Your task to perform on an android device: add a label to a message in the gmail app Image 0: 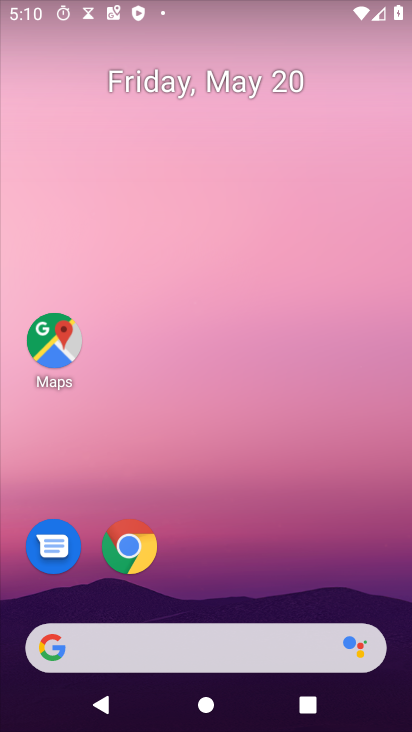
Step 0: drag from (244, 576) to (244, 273)
Your task to perform on an android device: add a label to a message in the gmail app Image 1: 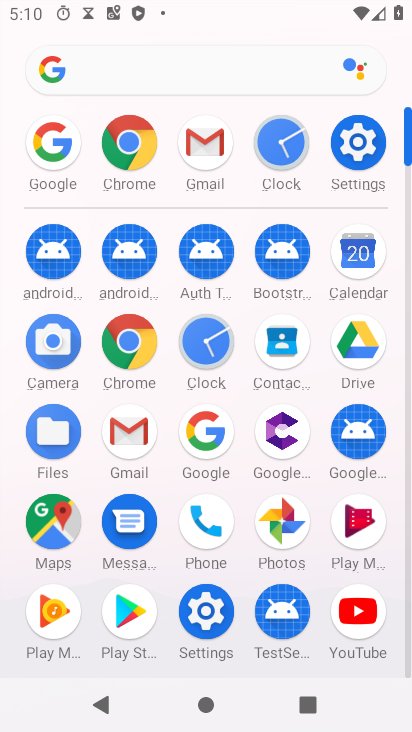
Step 1: click (207, 138)
Your task to perform on an android device: add a label to a message in the gmail app Image 2: 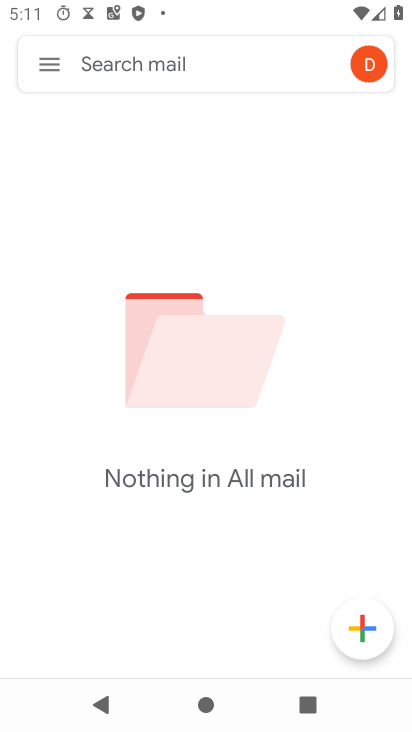
Step 2: click (46, 63)
Your task to perform on an android device: add a label to a message in the gmail app Image 3: 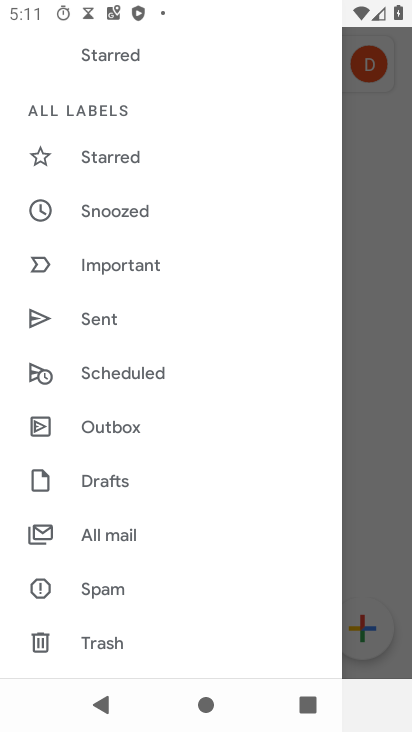
Step 3: click (107, 523)
Your task to perform on an android device: add a label to a message in the gmail app Image 4: 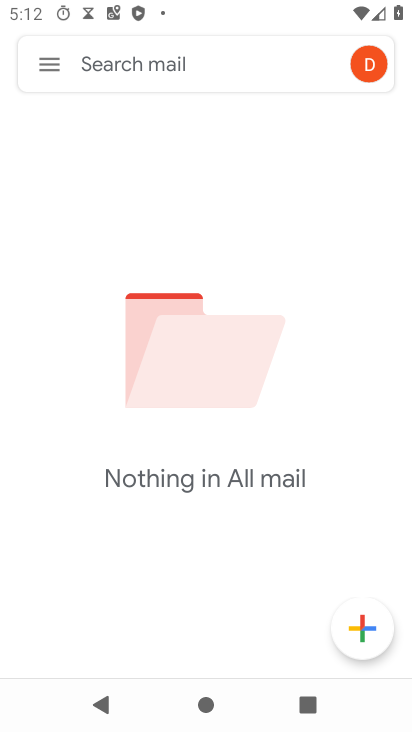
Step 4: click (47, 65)
Your task to perform on an android device: add a label to a message in the gmail app Image 5: 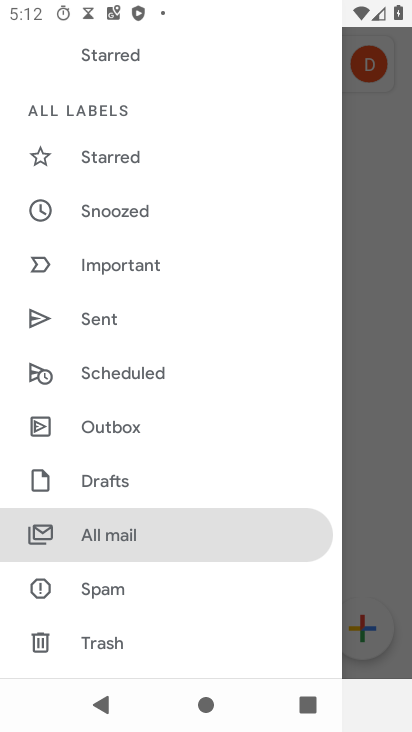
Step 5: drag from (154, 126) to (182, 311)
Your task to perform on an android device: add a label to a message in the gmail app Image 6: 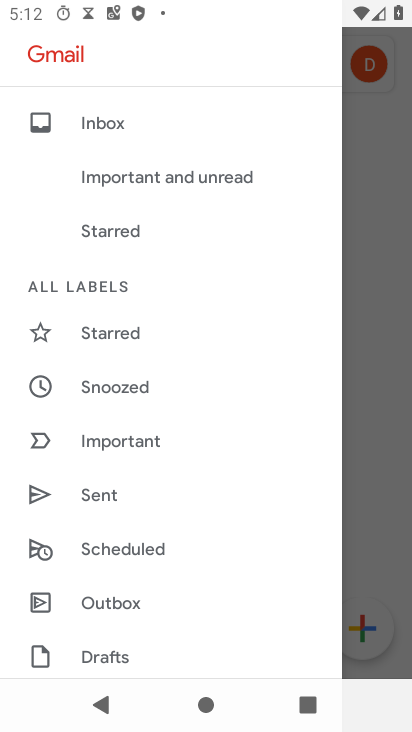
Step 6: click (112, 126)
Your task to perform on an android device: add a label to a message in the gmail app Image 7: 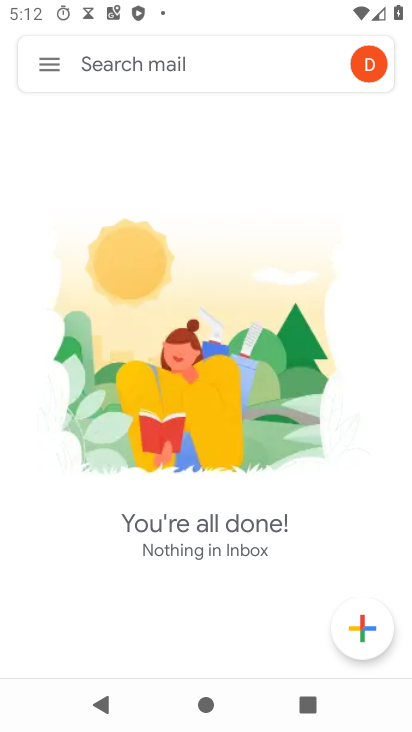
Step 7: task complete